Your task to perform on an android device: Open battery settings Image 0: 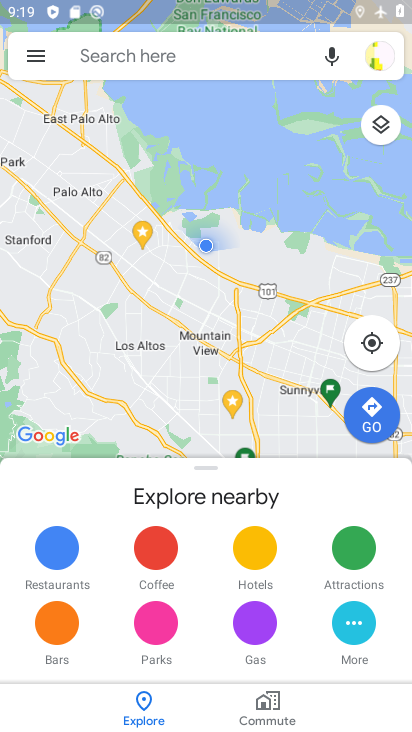
Step 0: press home button
Your task to perform on an android device: Open battery settings Image 1: 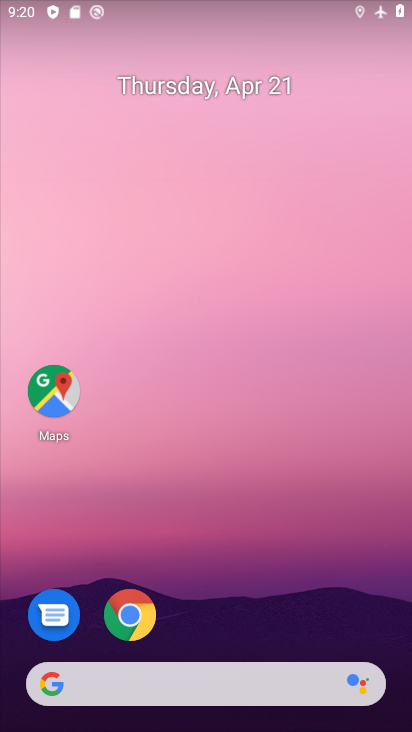
Step 1: drag from (207, 723) to (212, 151)
Your task to perform on an android device: Open battery settings Image 2: 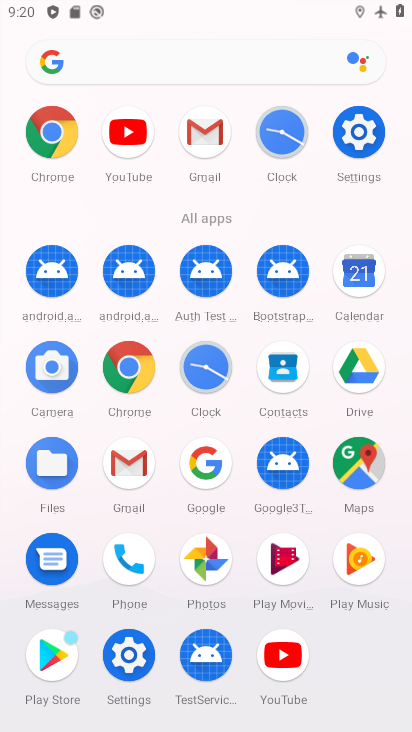
Step 2: click (359, 142)
Your task to perform on an android device: Open battery settings Image 3: 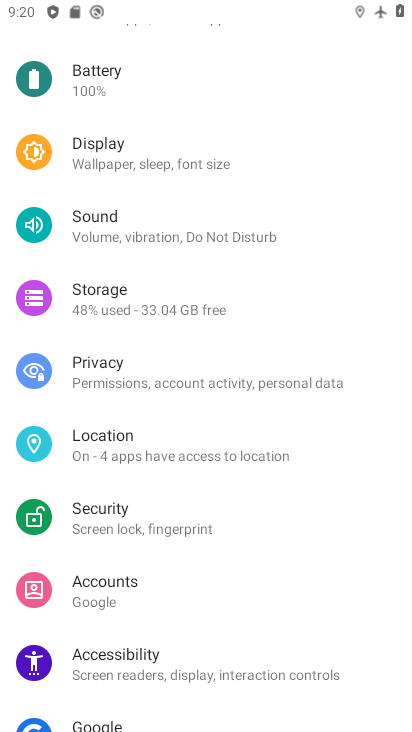
Step 3: click (90, 74)
Your task to perform on an android device: Open battery settings Image 4: 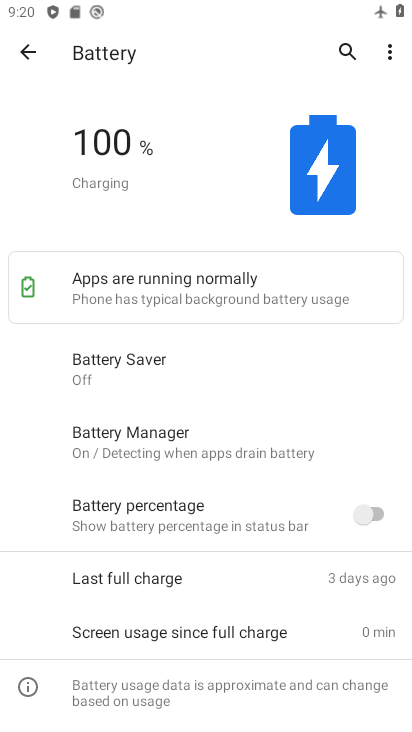
Step 4: task complete